Your task to perform on an android device: Do I have any events today? Image 0: 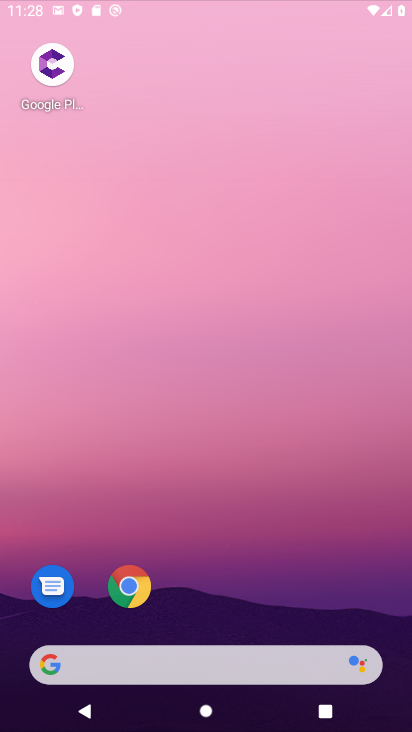
Step 0: press home button
Your task to perform on an android device: Do I have any events today? Image 1: 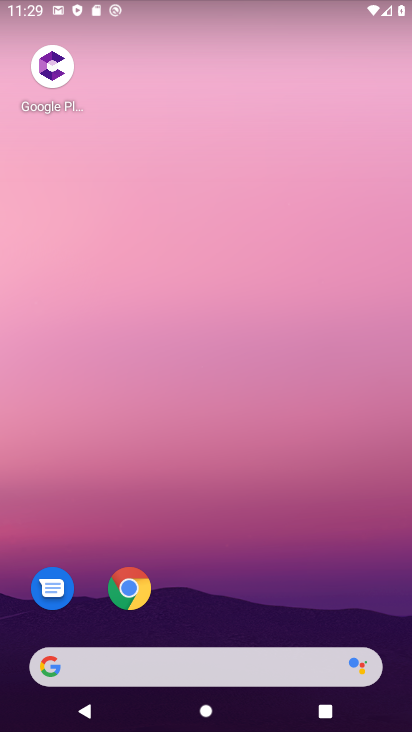
Step 1: click (209, 218)
Your task to perform on an android device: Do I have any events today? Image 2: 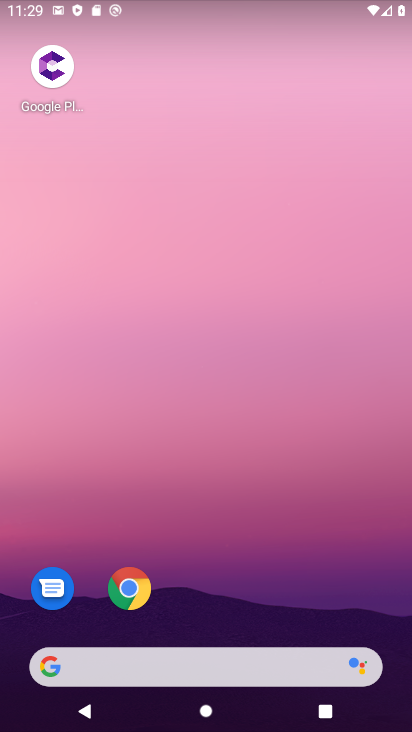
Step 2: click (238, 261)
Your task to perform on an android device: Do I have any events today? Image 3: 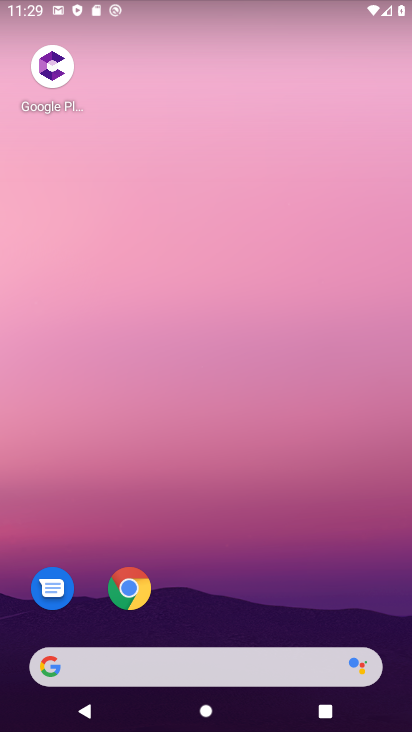
Step 3: click (226, 105)
Your task to perform on an android device: Do I have any events today? Image 4: 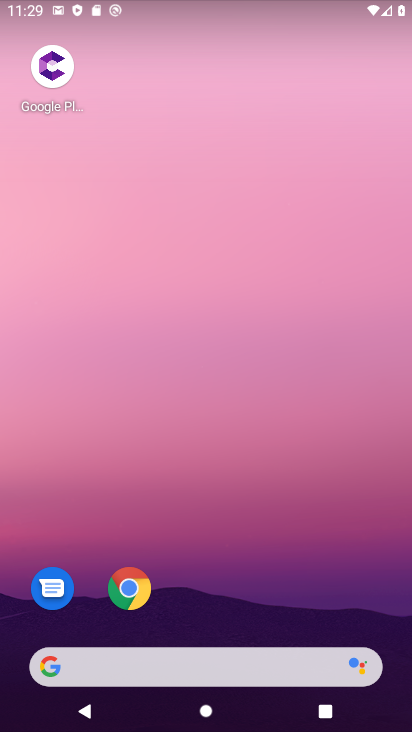
Step 4: drag from (172, 570) to (184, 211)
Your task to perform on an android device: Do I have any events today? Image 5: 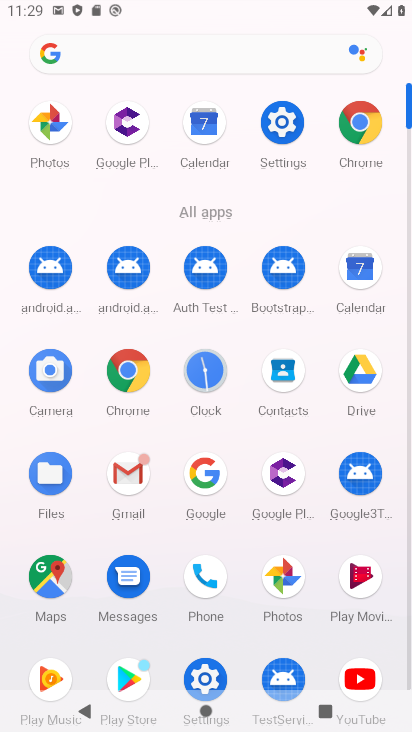
Step 5: click (261, 15)
Your task to perform on an android device: Do I have any events today? Image 6: 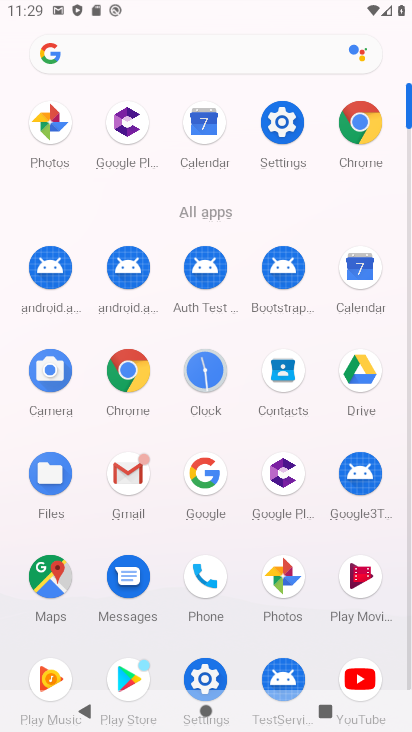
Step 6: click (381, 282)
Your task to perform on an android device: Do I have any events today? Image 7: 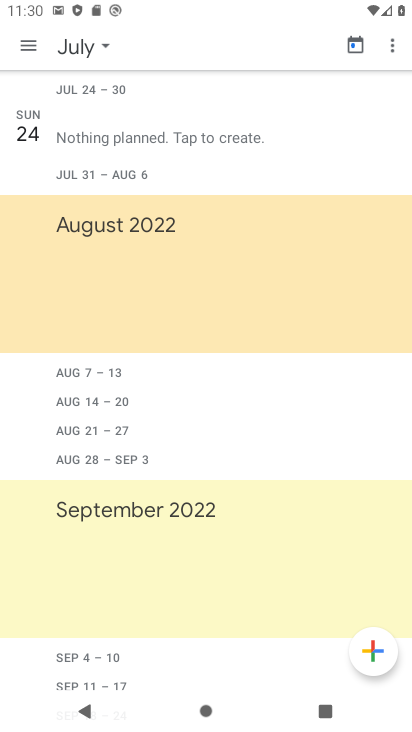
Step 7: click (37, 43)
Your task to perform on an android device: Do I have any events today? Image 8: 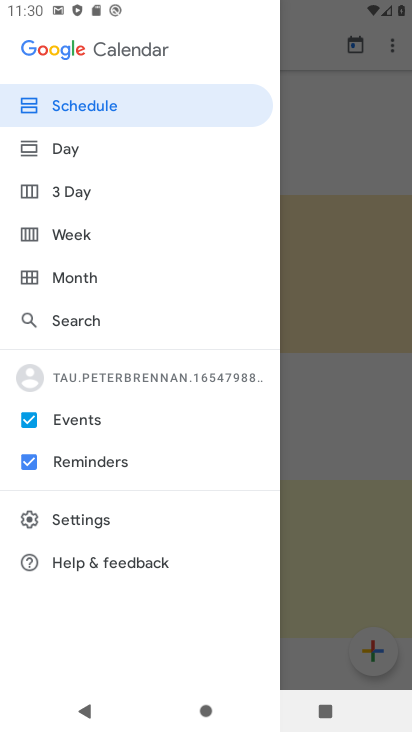
Step 8: click (71, 142)
Your task to perform on an android device: Do I have any events today? Image 9: 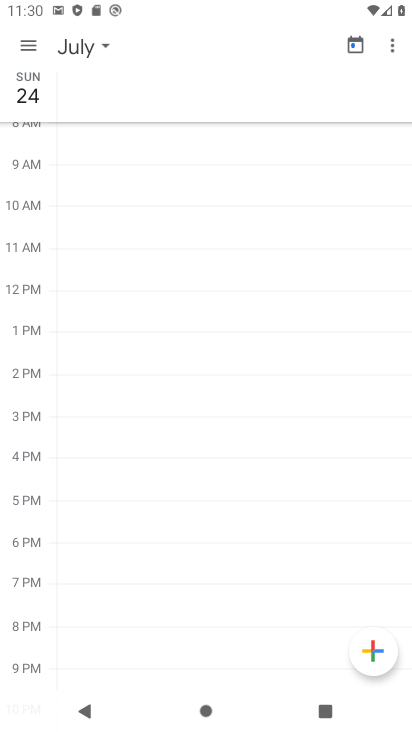
Step 9: click (86, 44)
Your task to perform on an android device: Do I have any events today? Image 10: 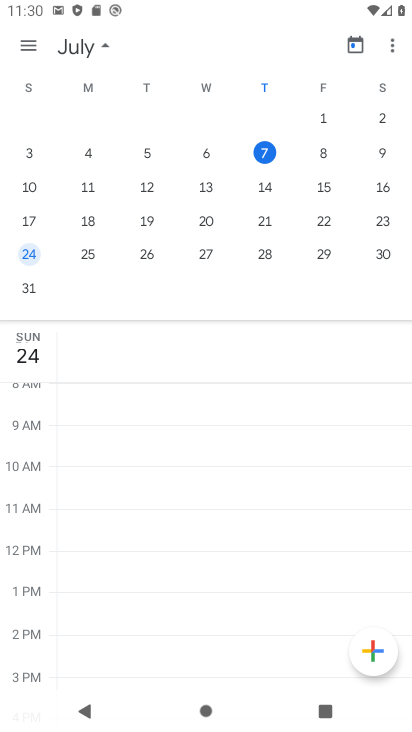
Step 10: click (267, 149)
Your task to perform on an android device: Do I have any events today? Image 11: 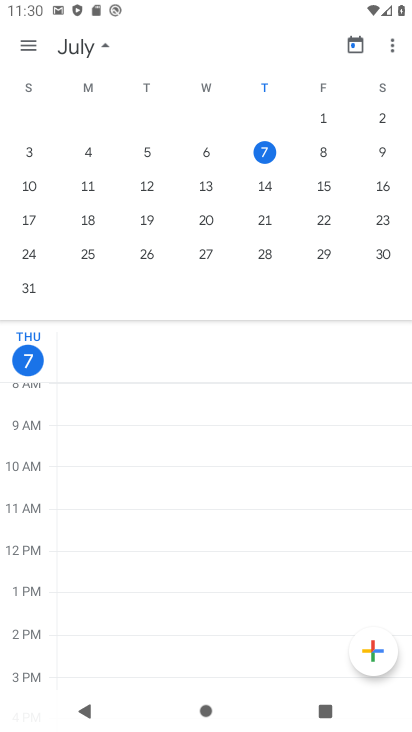
Step 11: drag from (246, 452) to (263, 354)
Your task to perform on an android device: Do I have any events today? Image 12: 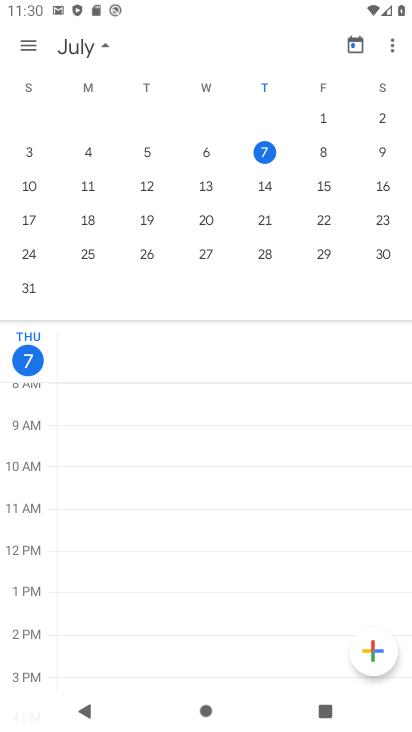
Step 12: click (293, 178)
Your task to perform on an android device: Do I have any events today? Image 13: 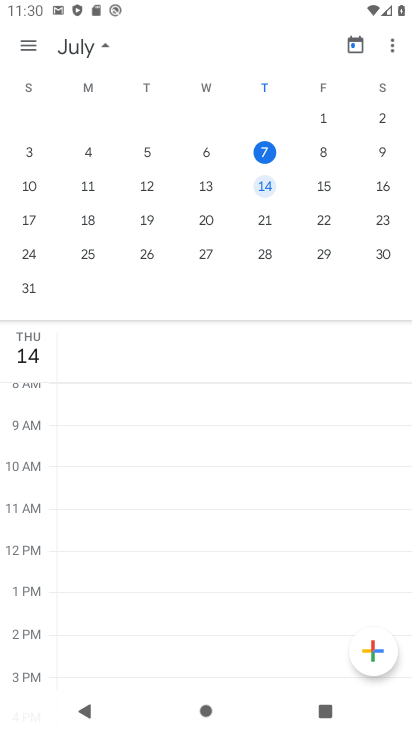
Step 13: task complete